Your task to perform on an android device: Show me recent news Image 0: 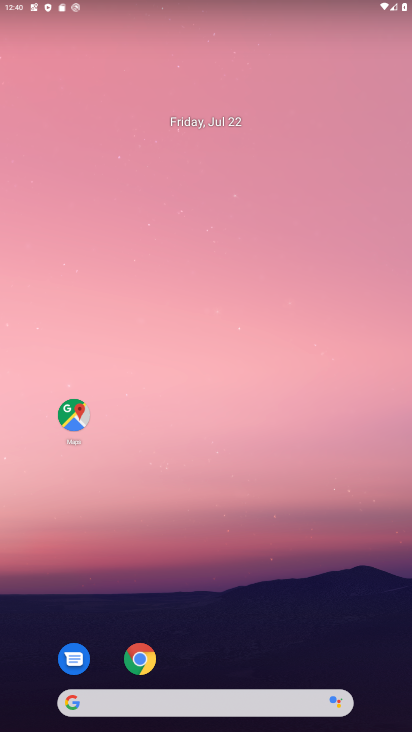
Step 0: click (189, 656)
Your task to perform on an android device: Show me recent news Image 1: 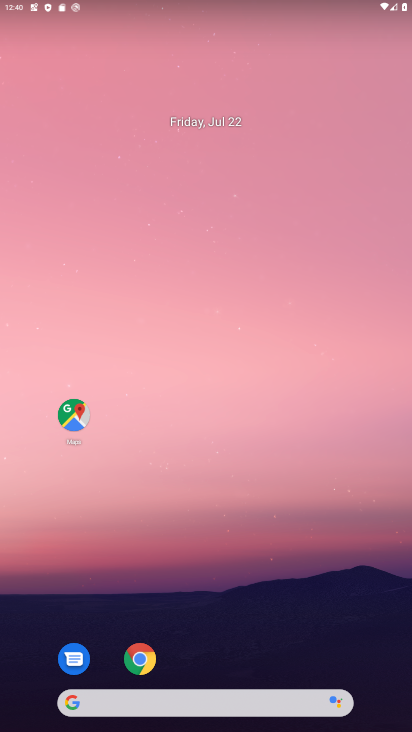
Step 1: click (181, 700)
Your task to perform on an android device: Show me recent news Image 2: 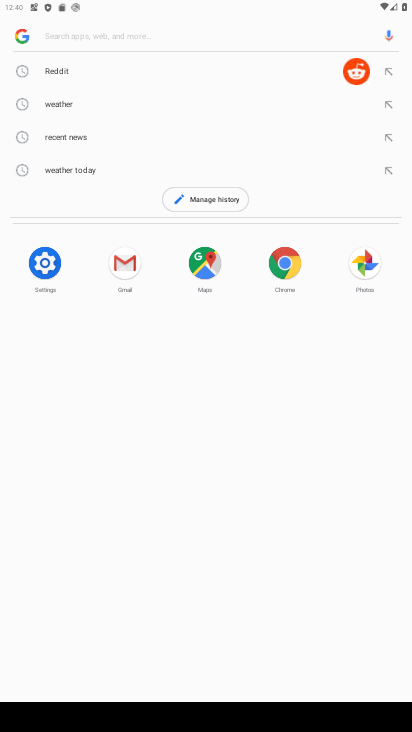
Step 2: click (83, 128)
Your task to perform on an android device: Show me recent news Image 3: 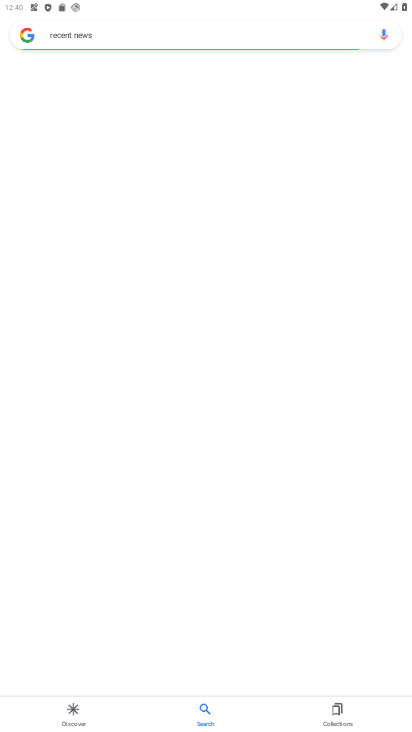
Step 3: task complete